Your task to perform on an android device: toggle improve location accuracy Image 0: 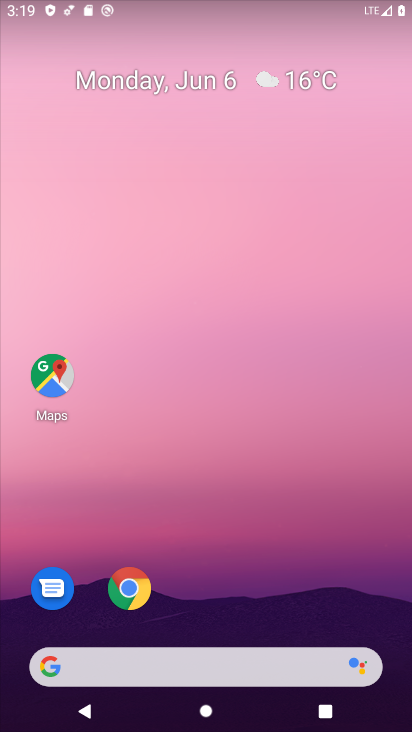
Step 0: drag from (211, 628) to (123, 242)
Your task to perform on an android device: toggle improve location accuracy Image 1: 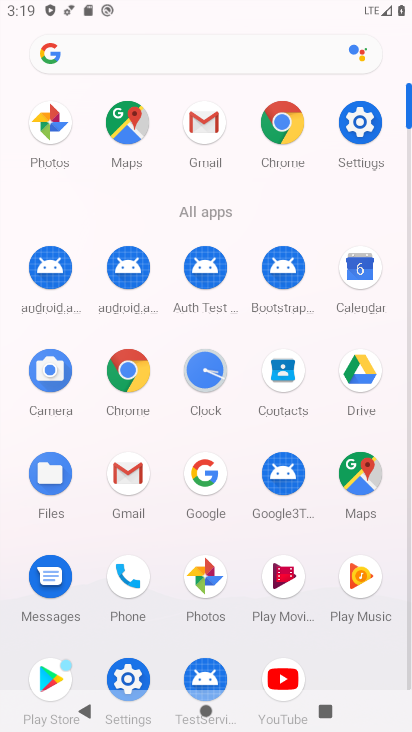
Step 1: click (353, 130)
Your task to perform on an android device: toggle improve location accuracy Image 2: 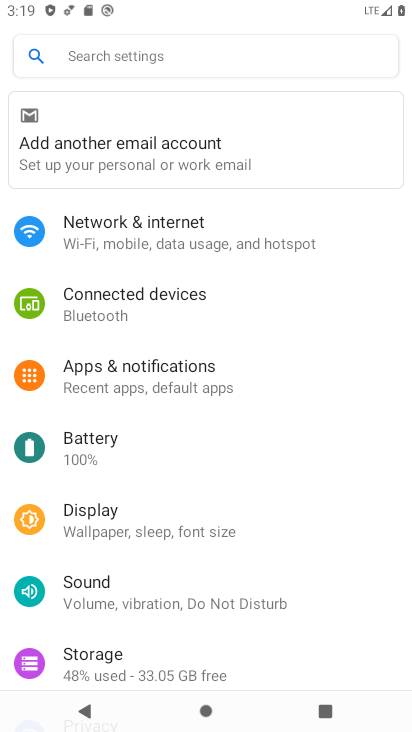
Step 2: drag from (237, 638) to (229, 346)
Your task to perform on an android device: toggle improve location accuracy Image 3: 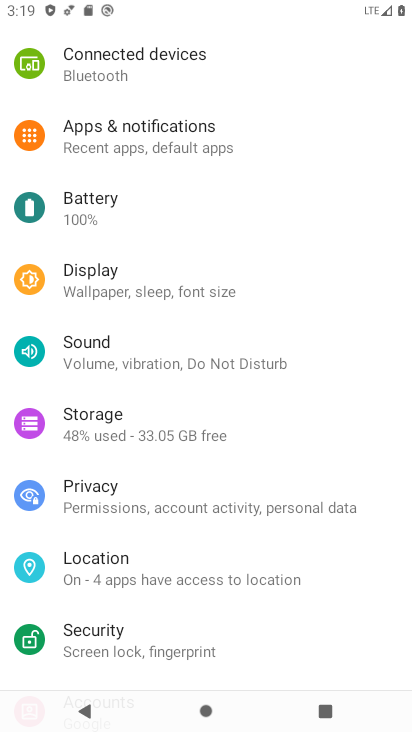
Step 3: click (195, 590)
Your task to perform on an android device: toggle improve location accuracy Image 4: 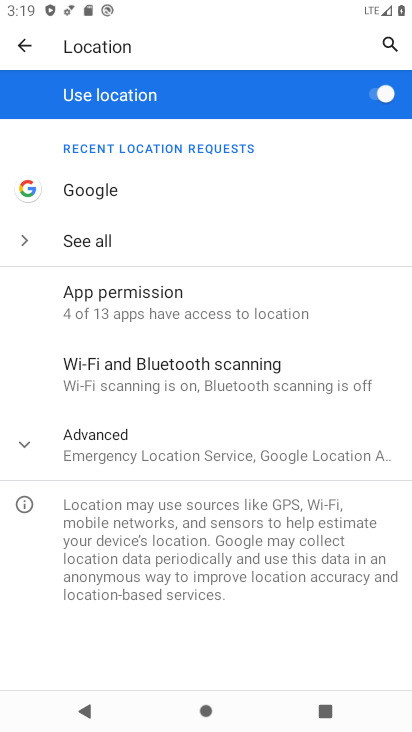
Step 4: click (280, 447)
Your task to perform on an android device: toggle improve location accuracy Image 5: 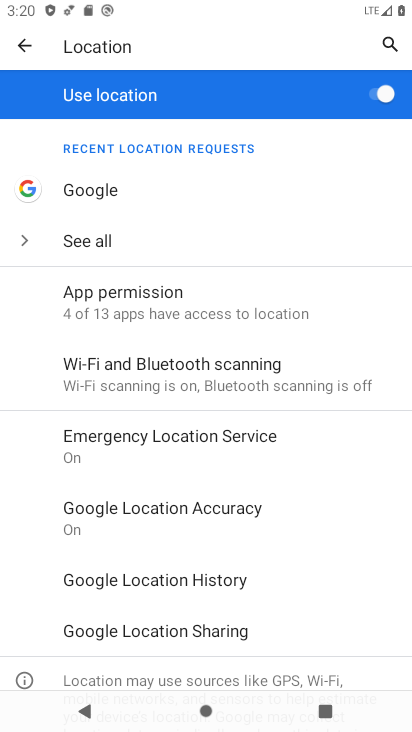
Step 5: click (237, 505)
Your task to perform on an android device: toggle improve location accuracy Image 6: 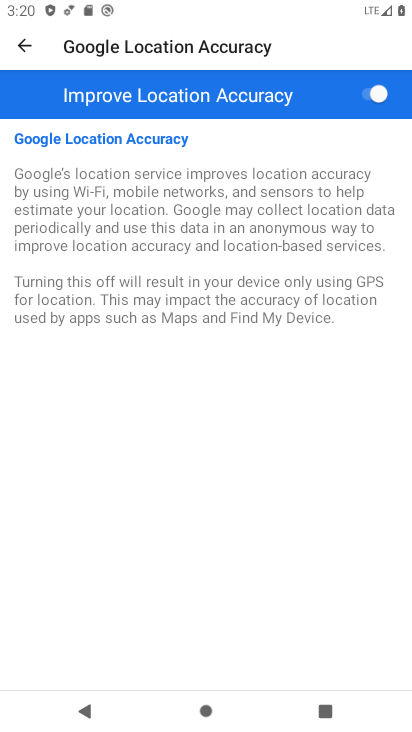
Step 6: click (365, 96)
Your task to perform on an android device: toggle improve location accuracy Image 7: 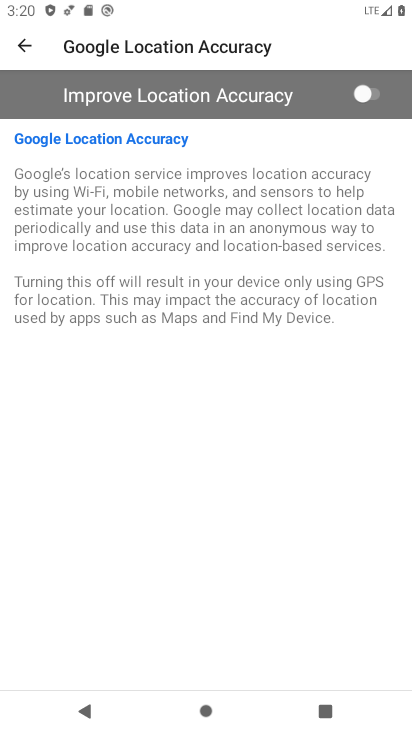
Step 7: task complete